Your task to perform on an android device: find snoozed emails in the gmail app Image 0: 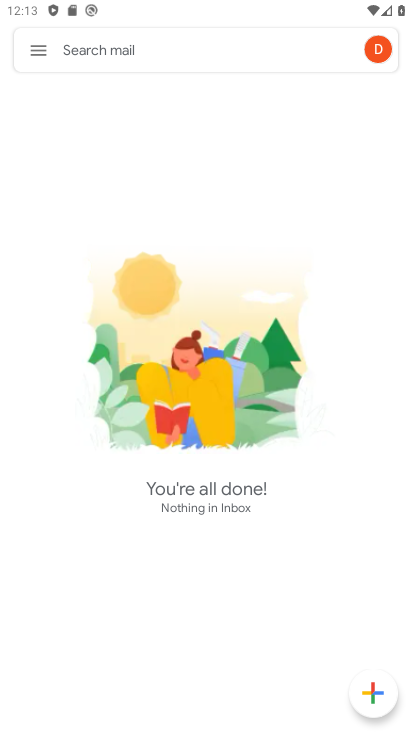
Step 0: click (39, 49)
Your task to perform on an android device: find snoozed emails in the gmail app Image 1: 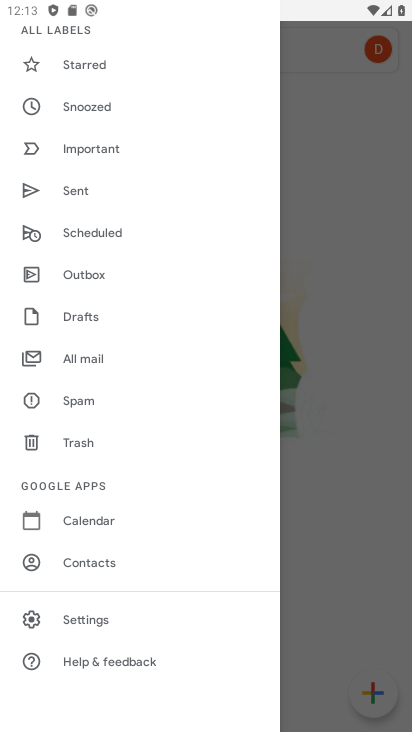
Step 1: click (133, 119)
Your task to perform on an android device: find snoozed emails in the gmail app Image 2: 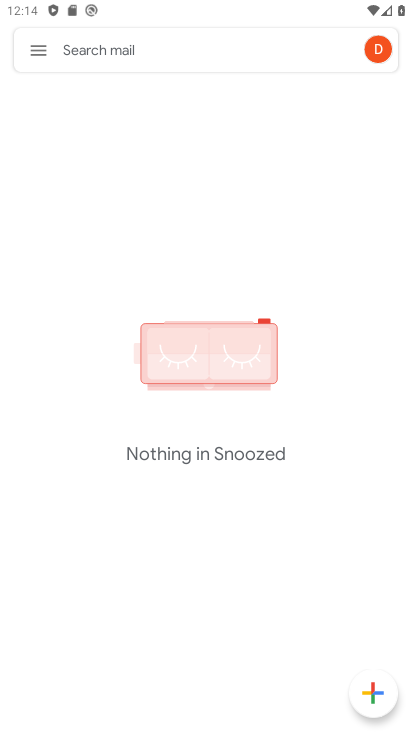
Step 2: task complete